Your task to perform on an android device: toggle wifi Image 0: 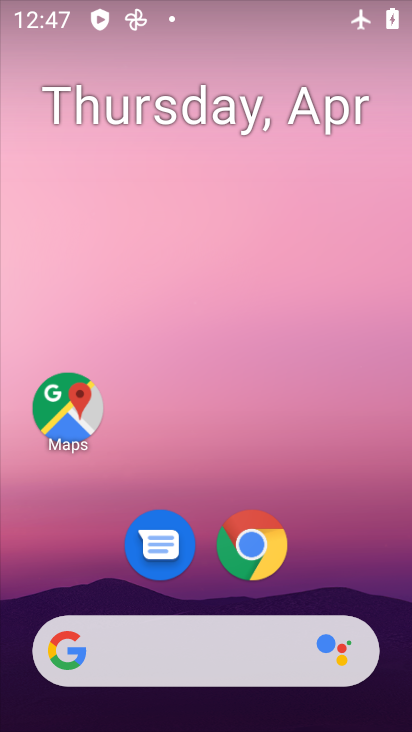
Step 0: drag from (329, 551) to (309, 63)
Your task to perform on an android device: toggle wifi Image 1: 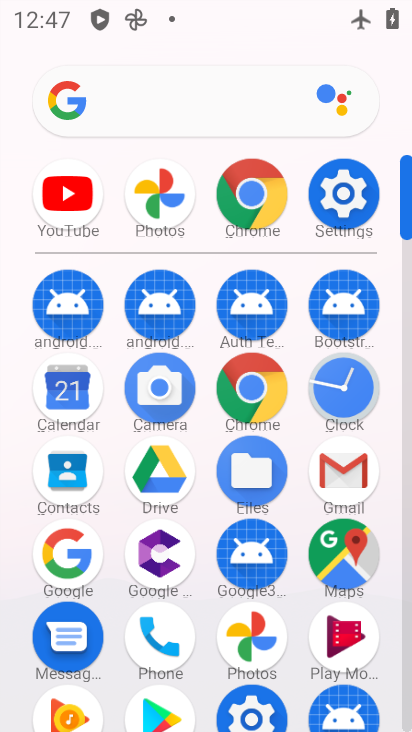
Step 1: click (339, 185)
Your task to perform on an android device: toggle wifi Image 2: 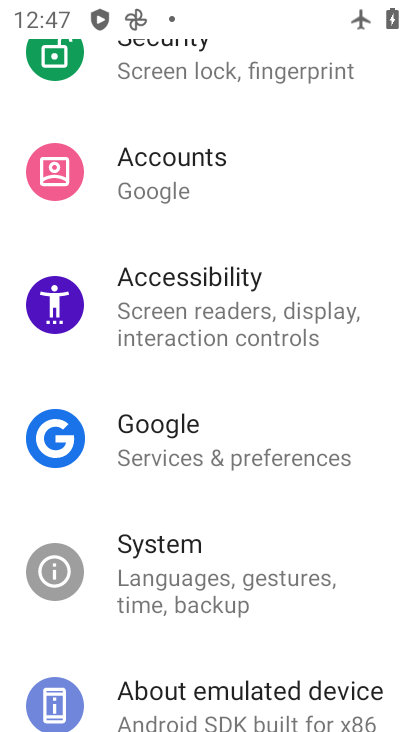
Step 2: drag from (246, 166) to (268, 652)
Your task to perform on an android device: toggle wifi Image 3: 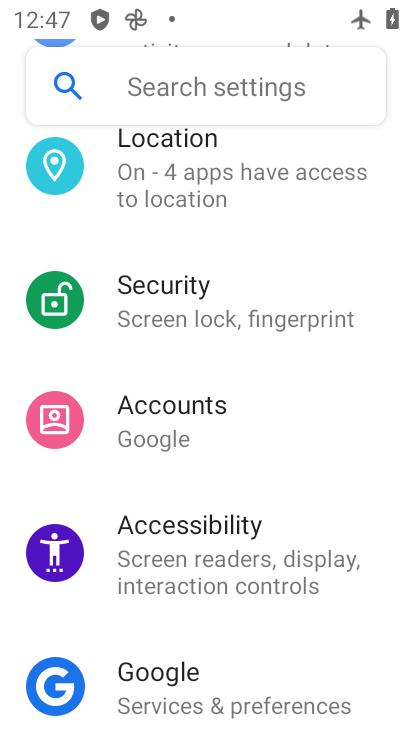
Step 3: drag from (253, 236) to (273, 579)
Your task to perform on an android device: toggle wifi Image 4: 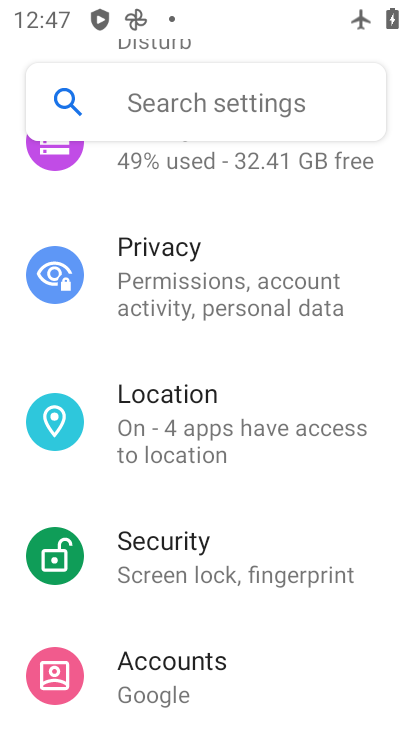
Step 4: drag from (265, 247) to (248, 630)
Your task to perform on an android device: toggle wifi Image 5: 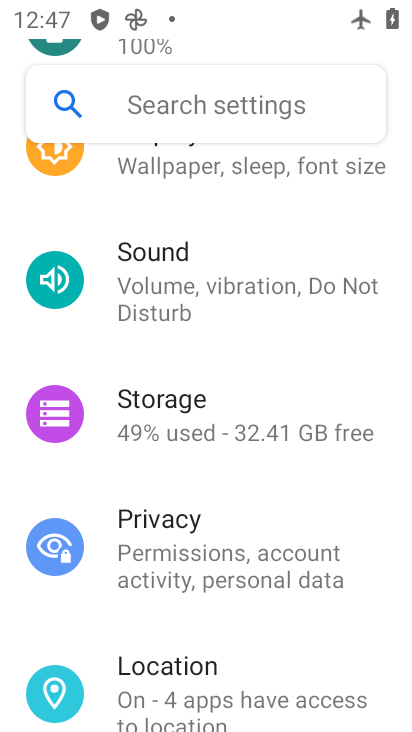
Step 5: drag from (226, 222) to (251, 637)
Your task to perform on an android device: toggle wifi Image 6: 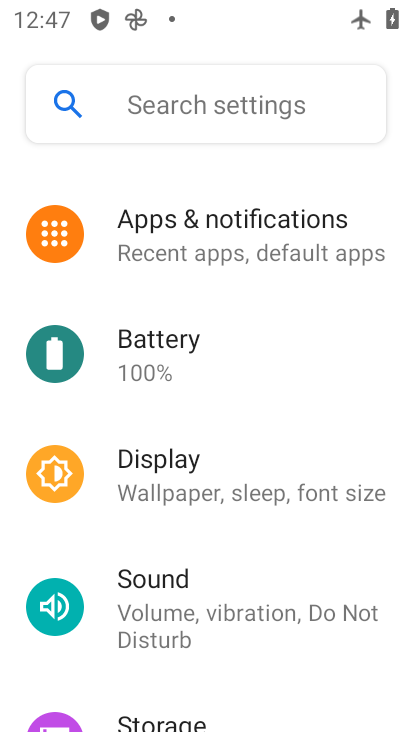
Step 6: drag from (273, 550) to (315, 727)
Your task to perform on an android device: toggle wifi Image 7: 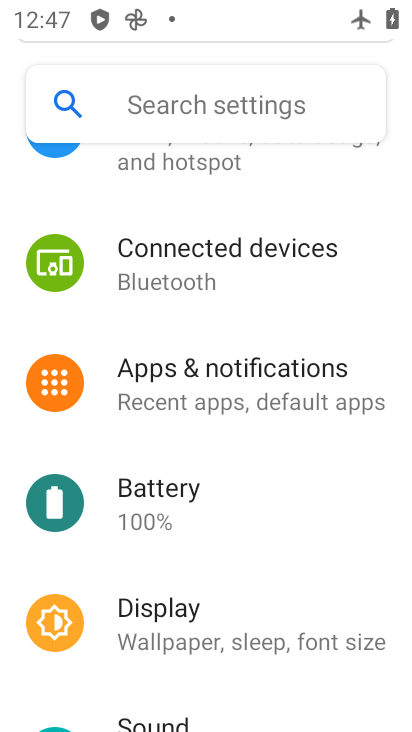
Step 7: click (207, 160)
Your task to perform on an android device: toggle wifi Image 8: 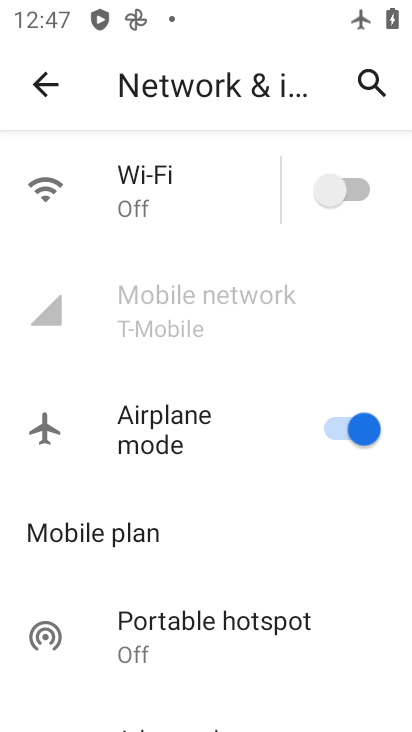
Step 8: click (360, 181)
Your task to perform on an android device: toggle wifi Image 9: 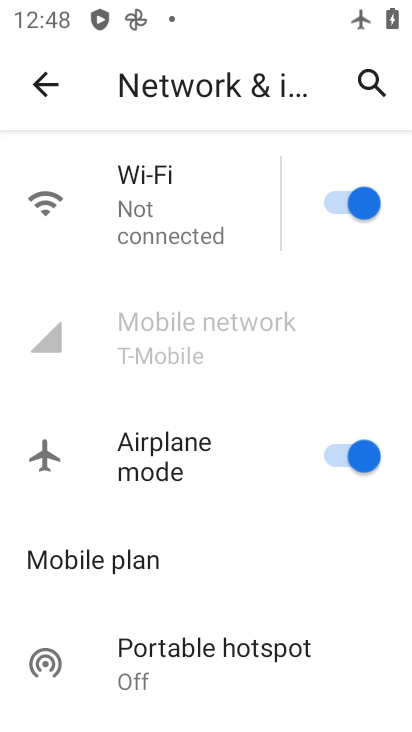
Step 9: task complete